Your task to perform on an android device: visit the assistant section in the google photos Image 0: 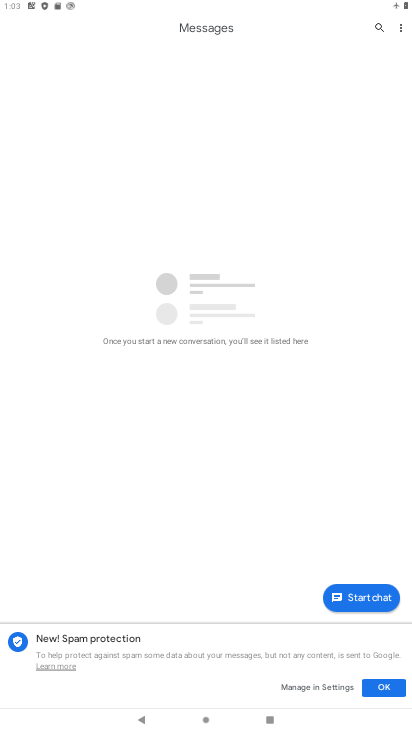
Step 0: press home button
Your task to perform on an android device: visit the assistant section in the google photos Image 1: 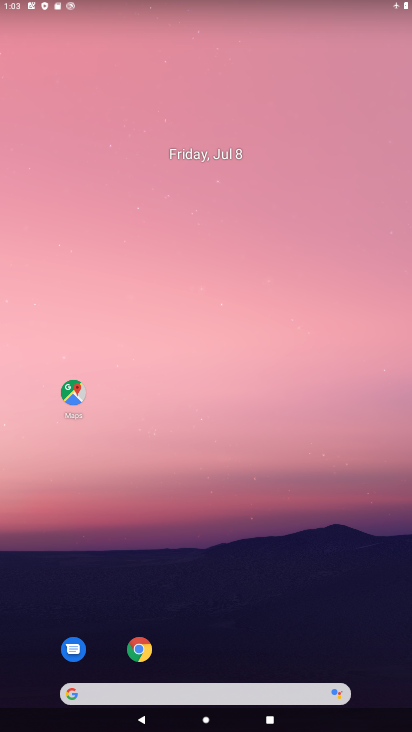
Step 1: drag from (40, 694) to (166, 6)
Your task to perform on an android device: visit the assistant section in the google photos Image 2: 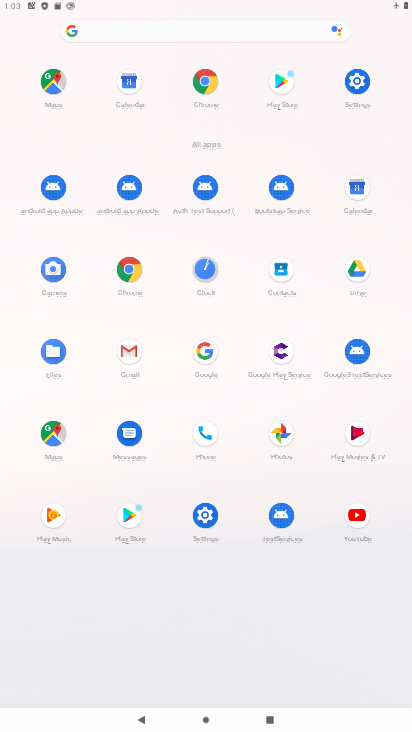
Step 2: click (282, 428)
Your task to perform on an android device: visit the assistant section in the google photos Image 3: 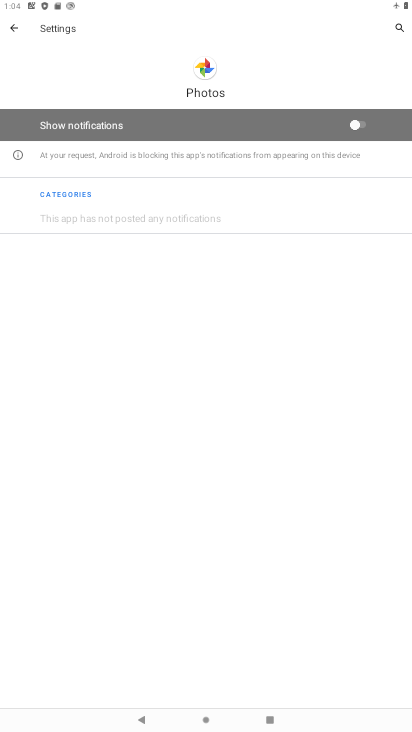
Step 3: click (15, 33)
Your task to perform on an android device: visit the assistant section in the google photos Image 4: 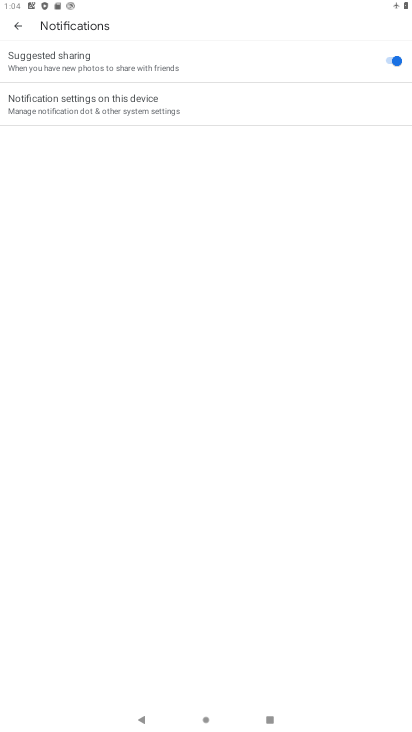
Step 4: click (18, 22)
Your task to perform on an android device: visit the assistant section in the google photos Image 5: 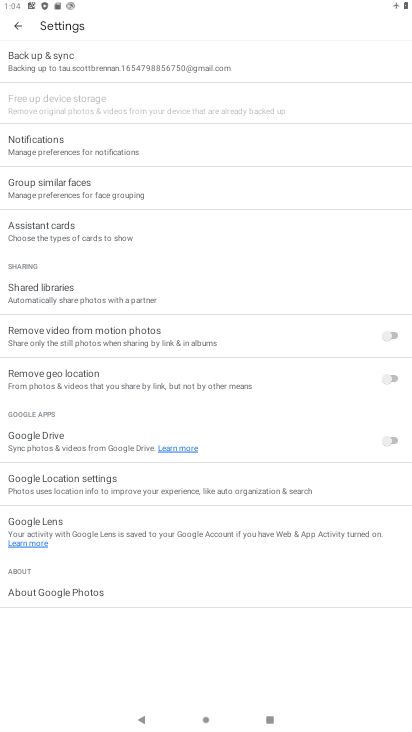
Step 5: click (18, 21)
Your task to perform on an android device: visit the assistant section in the google photos Image 6: 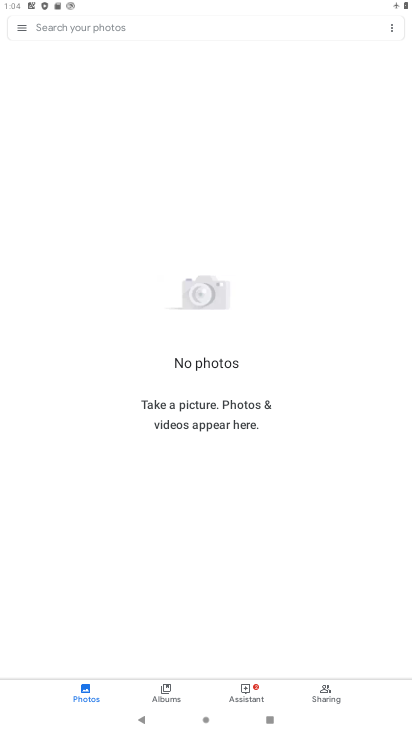
Step 6: click (234, 684)
Your task to perform on an android device: visit the assistant section in the google photos Image 7: 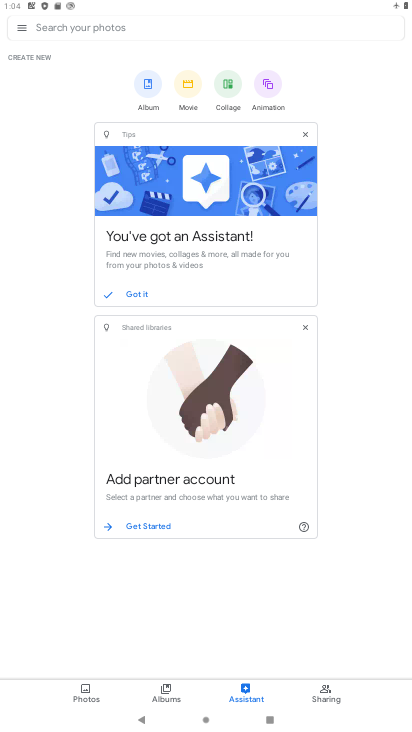
Step 7: task complete